Your task to perform on an android device: turn smart compose on in the gmail app Image 0: 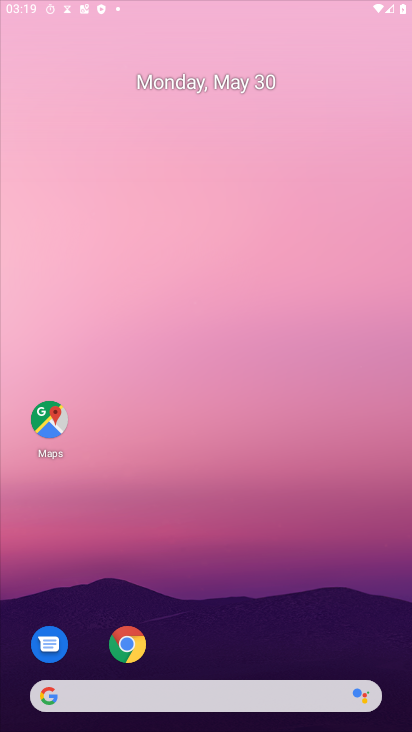
Step 0: press home button
Your task to perform on an android device: turn smart compose on in the gmail app Image 1: 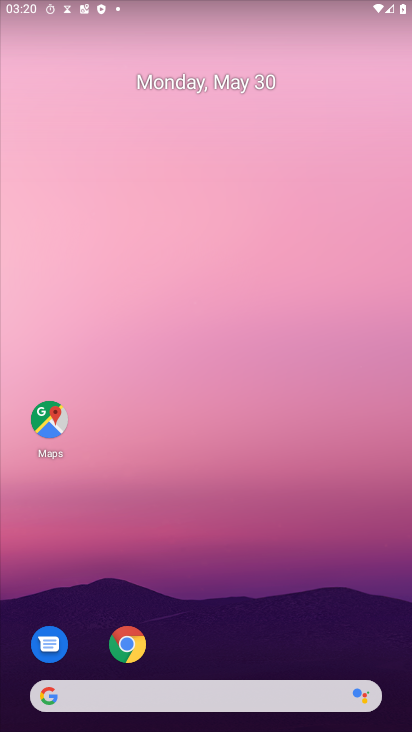
Step 1: drag from (237, 565) to (290, 173)
Your task to perform on an android device: turn smart compose on in the gmail app Image 2: 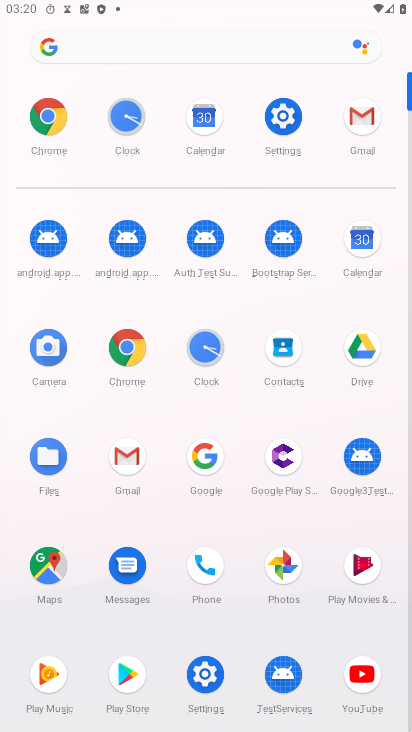
Step 2: click (365, 116)
Your task to perform on an android device: turn smart compose on in the gmail app Image 3: 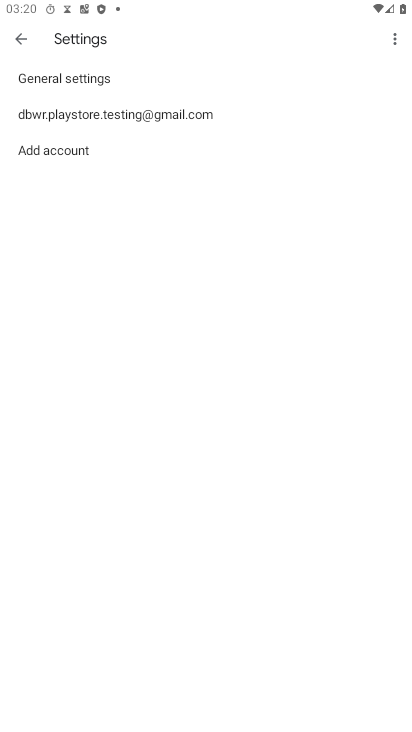
Step 3: click (86, 120)
Your task to perform on an android device: turn smart compose on in the gmail app Image 4: 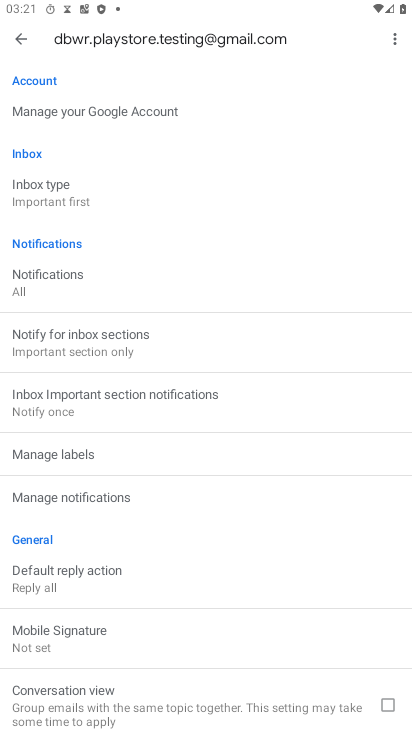
Step 4: task complete